Your task to perform on an android device: change the clock display to show seconds Image 0: 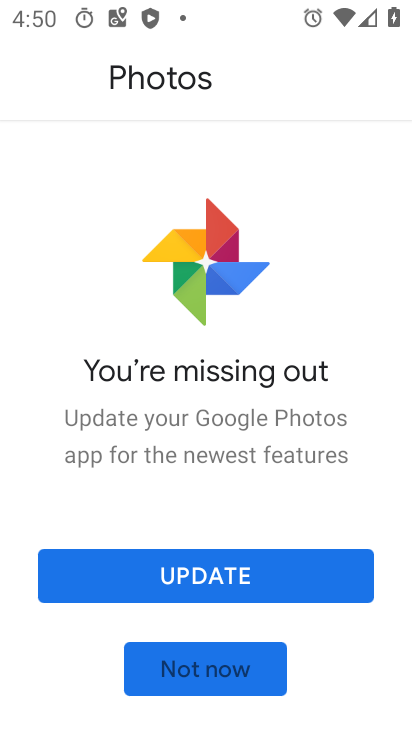
Step 0: press home button
Your task to perform on an android device: change the clock display to show seconds Image 1: 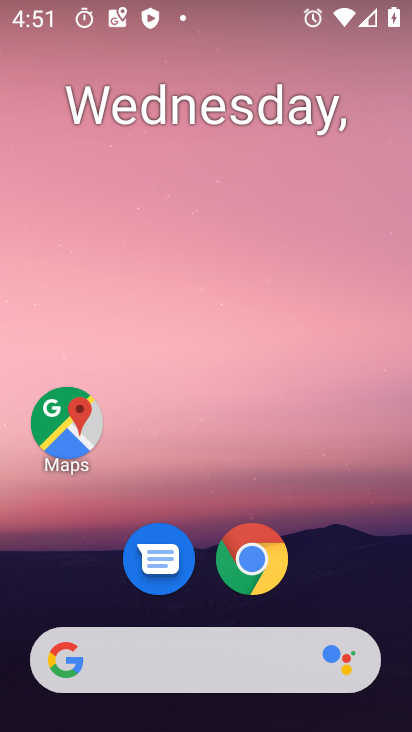
Step 1: drag from (377, 586) to (290, 83)
Your task to perform on an android device: change the clock display to show seconds Image 2: 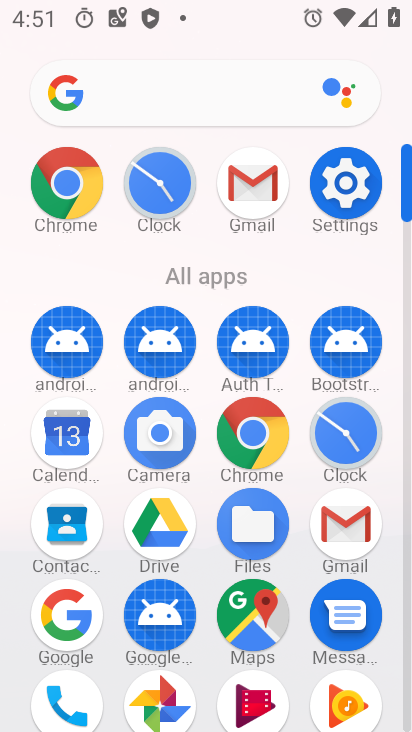
Step 2: click (170, 196)
Your task to perform on an android device: change the clock display to show seconds Image 3: 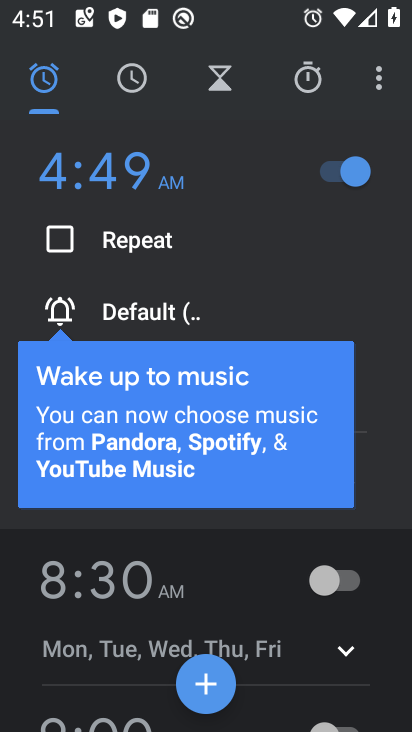
Step 3: click (382, 86)
Your task to perform on an android device: change the clock display to show seconds Image 4: 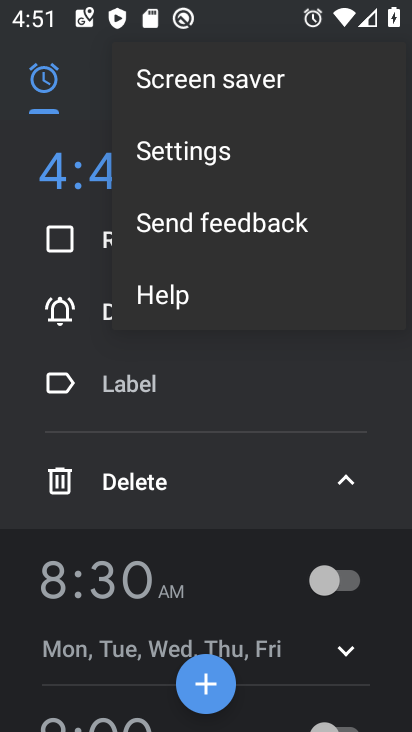
Step 4: click (315, 149)
Your task to perform on an android device: change the clock display to show seconds Image 5: 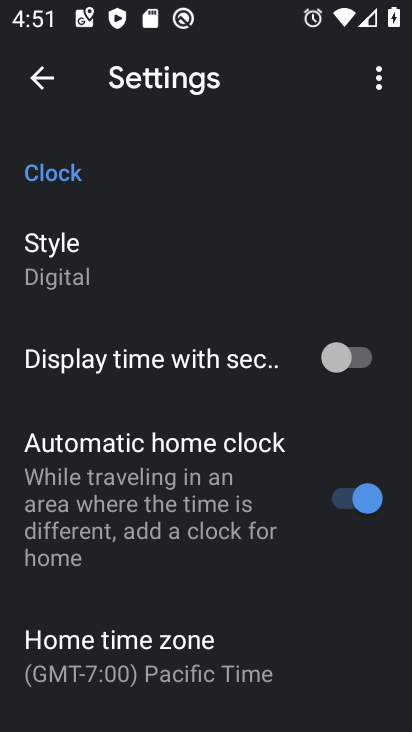
Step 5: click (342, 349)
Your task to perform on an android device: change the clock display to show seconds Image 6: 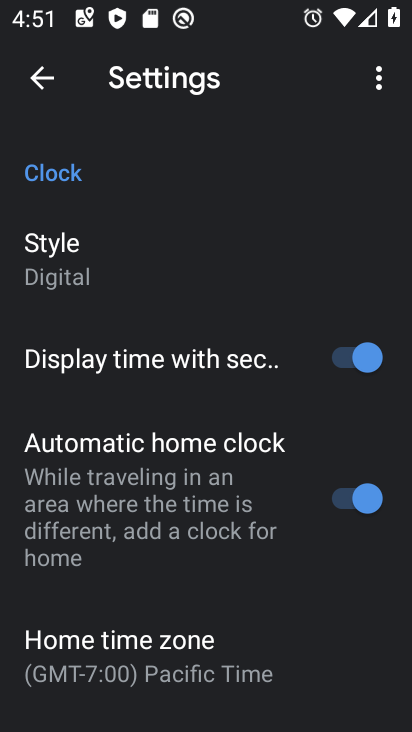
Step 6: task complete